Your task to perform on an android device: uninstall "ColorNote Notepad Notes" Image 0: 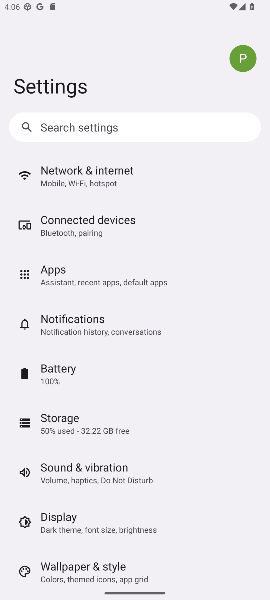
Step 0: press back button
Your task to perform on an android device: uninstall "ColorNote Notepad Notes" Image 1: 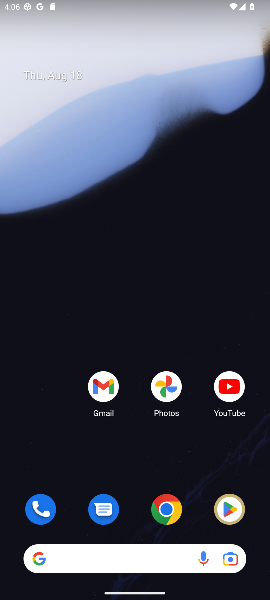
Step 1: click (233, 517)
Your task to perform on an android device: uninstall "ColorNote Notepad Notes" Image 2: 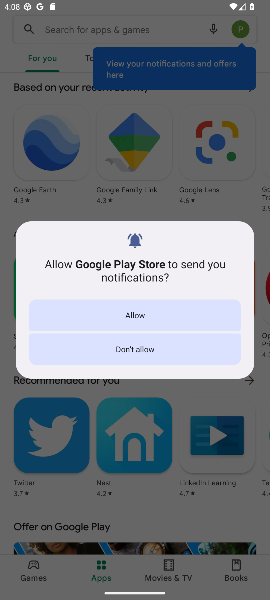
Step 2: press back button
Your task to perform on an android device: uninstall "ColorNote Notepad Notes" Image 3: 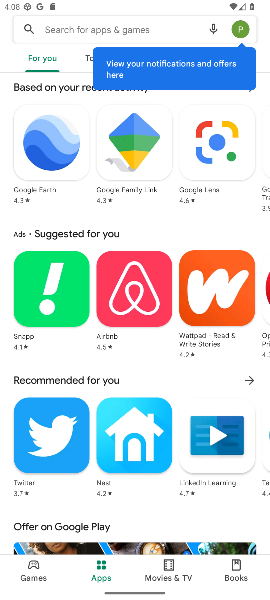
Step 3: press back button
Your task to perform on an android device: uninstall "ColorNote Notepad Notes" Image 4: 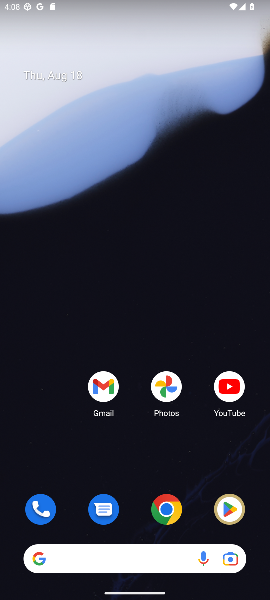
Step 4: click (229, 515)
Your task to perform on an android device: uninstall "ColorNote Notepad Notes" Image 5: 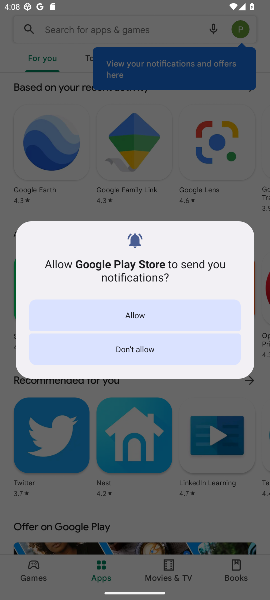
Step 5: click (124, 177)
Your task to perform on an android device: uninstall "ColorNote Notepad Notes" Image 6: 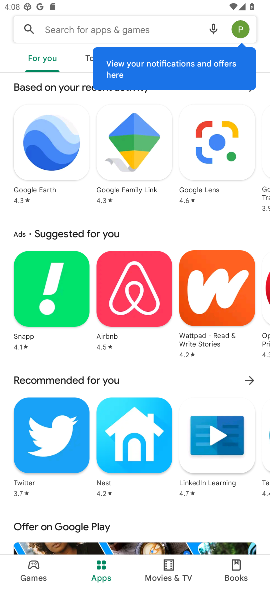
Step 6: click (133, 344)
Your task to perform on an android device: uninstall "ColorNote Notepad Notes" Image 7: 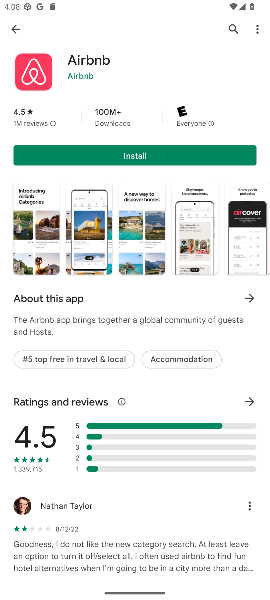
Step 7: click (234, 26)
Your task to perform on an android device: uninstall "ColorNote Notepad Notes" Image 8: 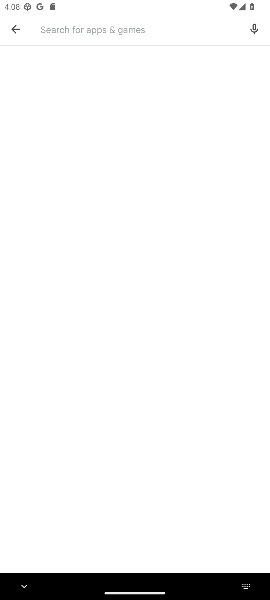
Step 8: click (71, 27)
Your task to perform on an android device: uninstall "ColorNote Notepad Notes" Image 9: 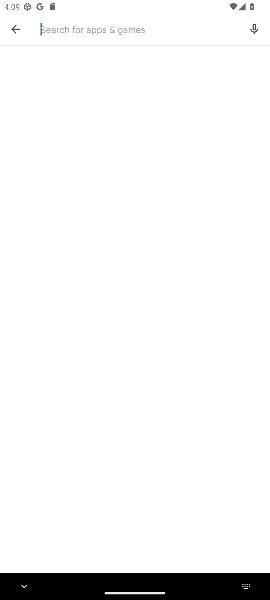
Step 9: type "ColorNote Notepad Notes"
Your task to perform on an android device: uninstall "ColorNote Notepad Notes" Image 10: 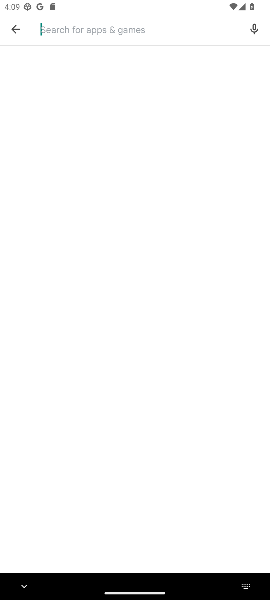
Step 10: click (180, 292)
Your task to perform on an android device: uninstall "ColorNote Notepad Notes" Image 11: 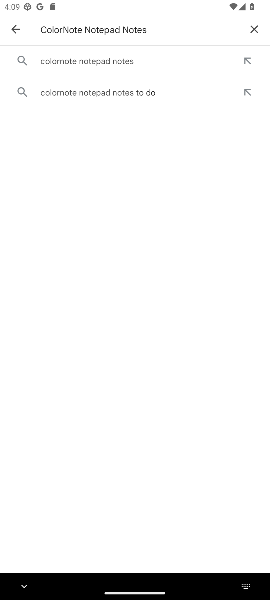
Step 11: click (108, 59)
Your task to perform on an android device: uninstall "ColorNote Notepad Notes" Image 12: 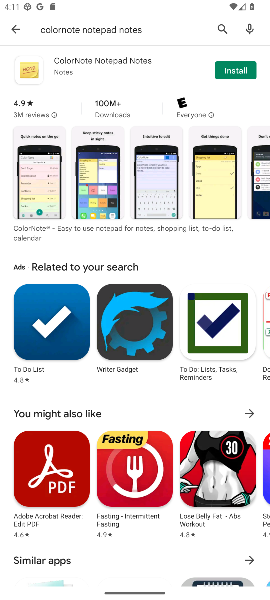
Step 12: task complete